Your task to perform on an android device: Go to eBay Image 0: 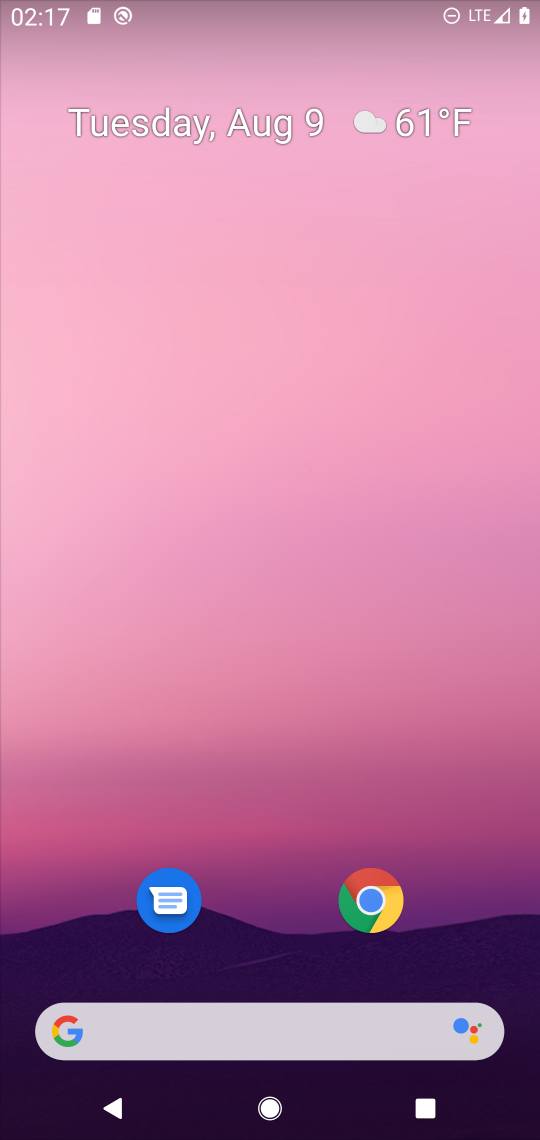
Step 0: press home button
Your task to perform on an android device: Go to eBay Image 1: 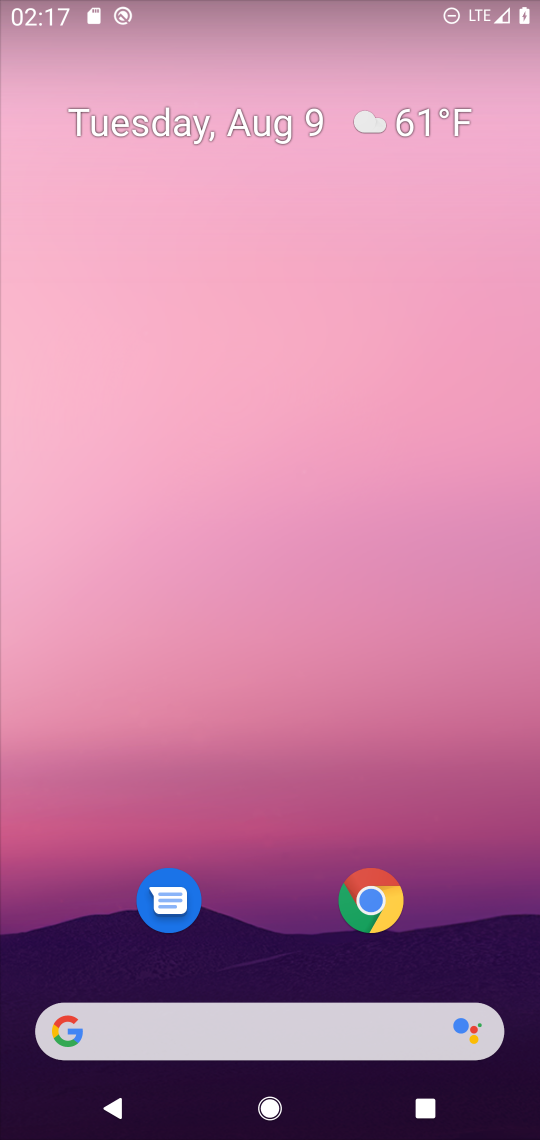
Step 1: drag from (254, 944) to (306, 78)
Your task to perform on an android device: Go to eBay Image 2: 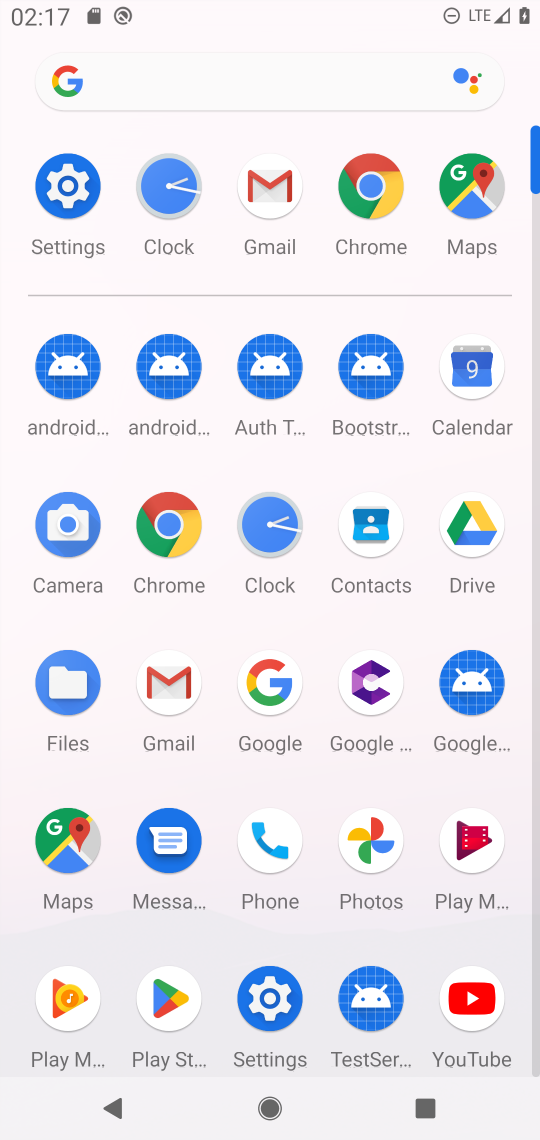
Step 2: click (174, 530)
Your task to perform on an android device: Go to eBay Image 3: 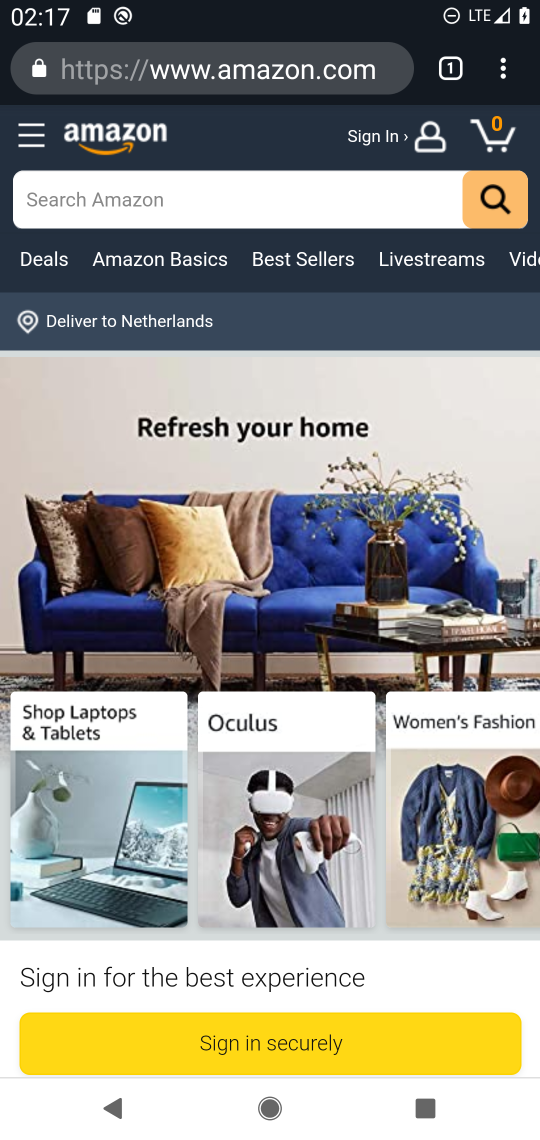
Step 3: click (288, 64)
Your task to perform on an android device: Go to eBay Image 4: 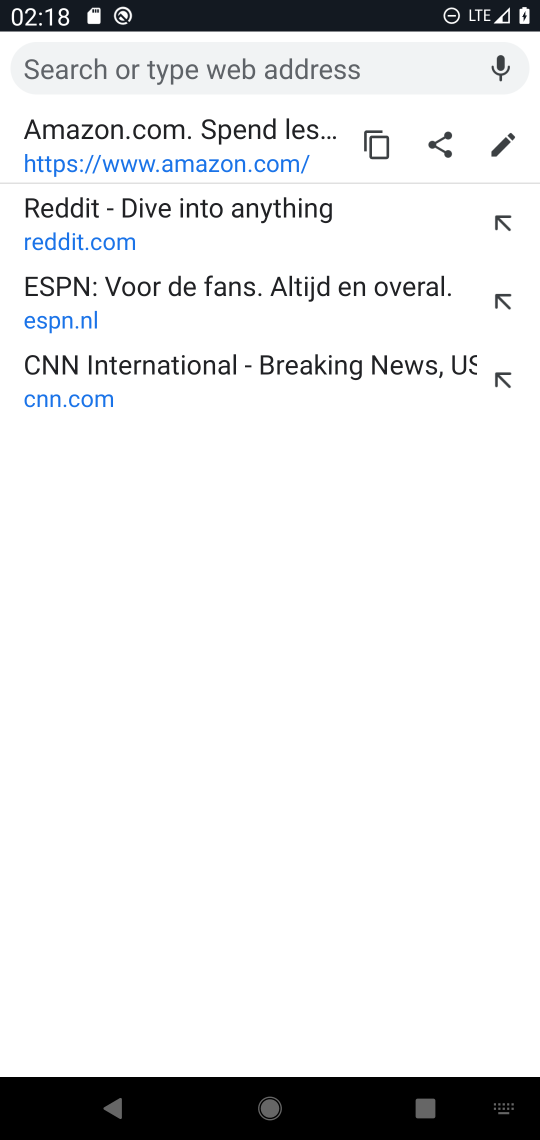
Step 4: type "ebay"
Your task to perform on an android device: Go to eBay Image 5: 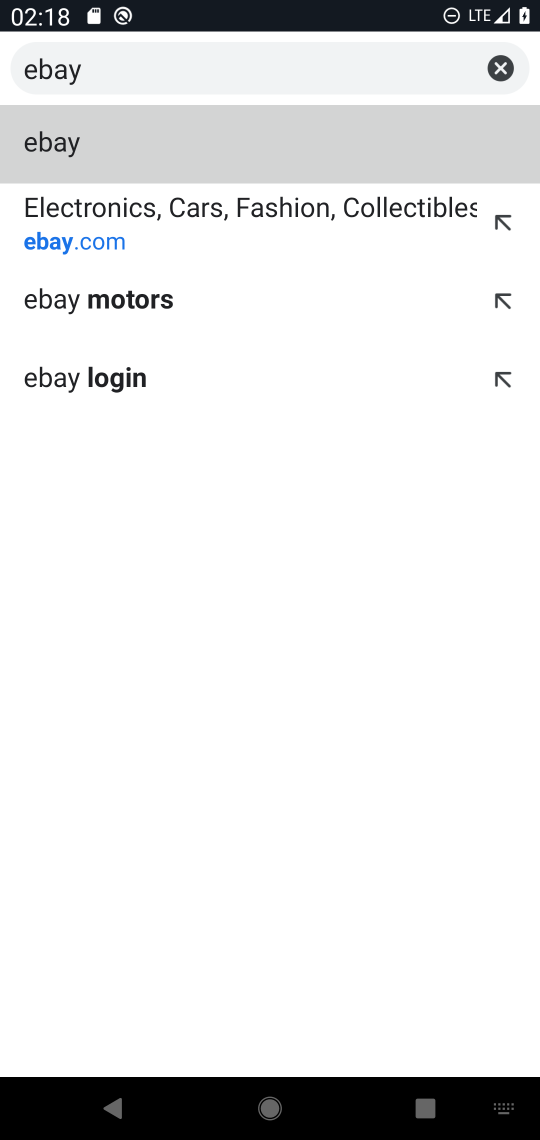
Step 5: click (226, 224)
Your task to perform on an android device: Go to eBay Image 6: 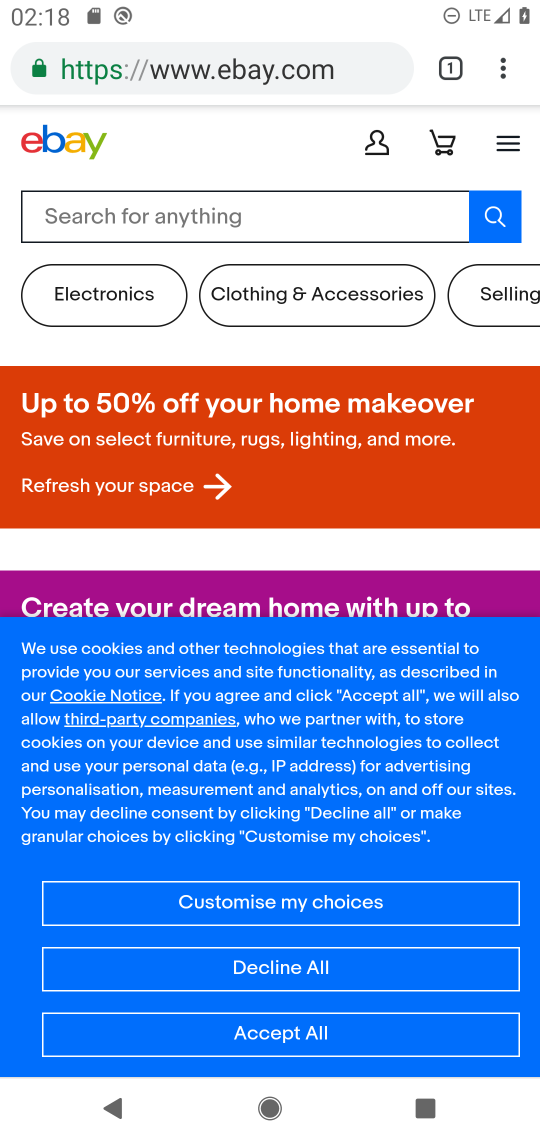
Step 6: task complete